Your task to perform on an android device: Search for good BBQ restaurants Image 0: 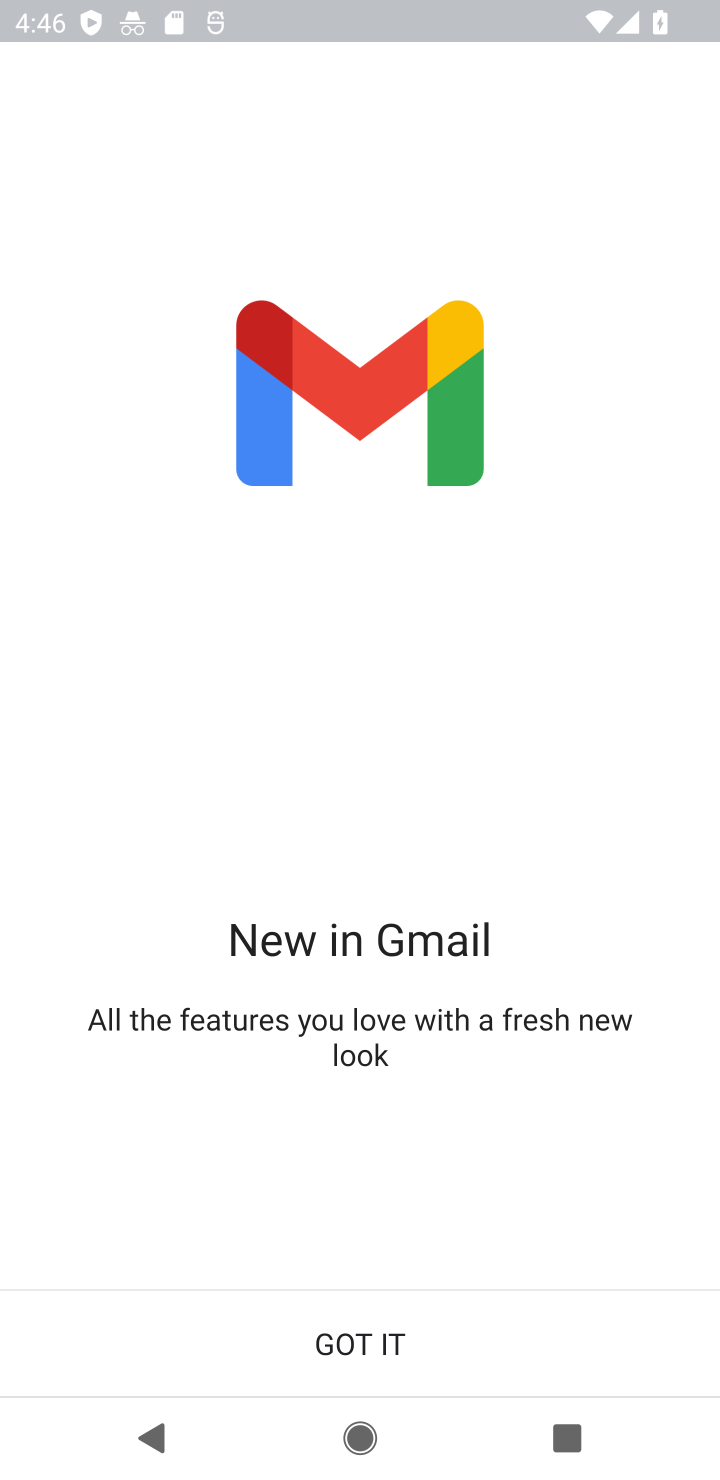
Step 0: press home button
Your task to perform on an android device: Search for good BBQ restaurants Image 1: 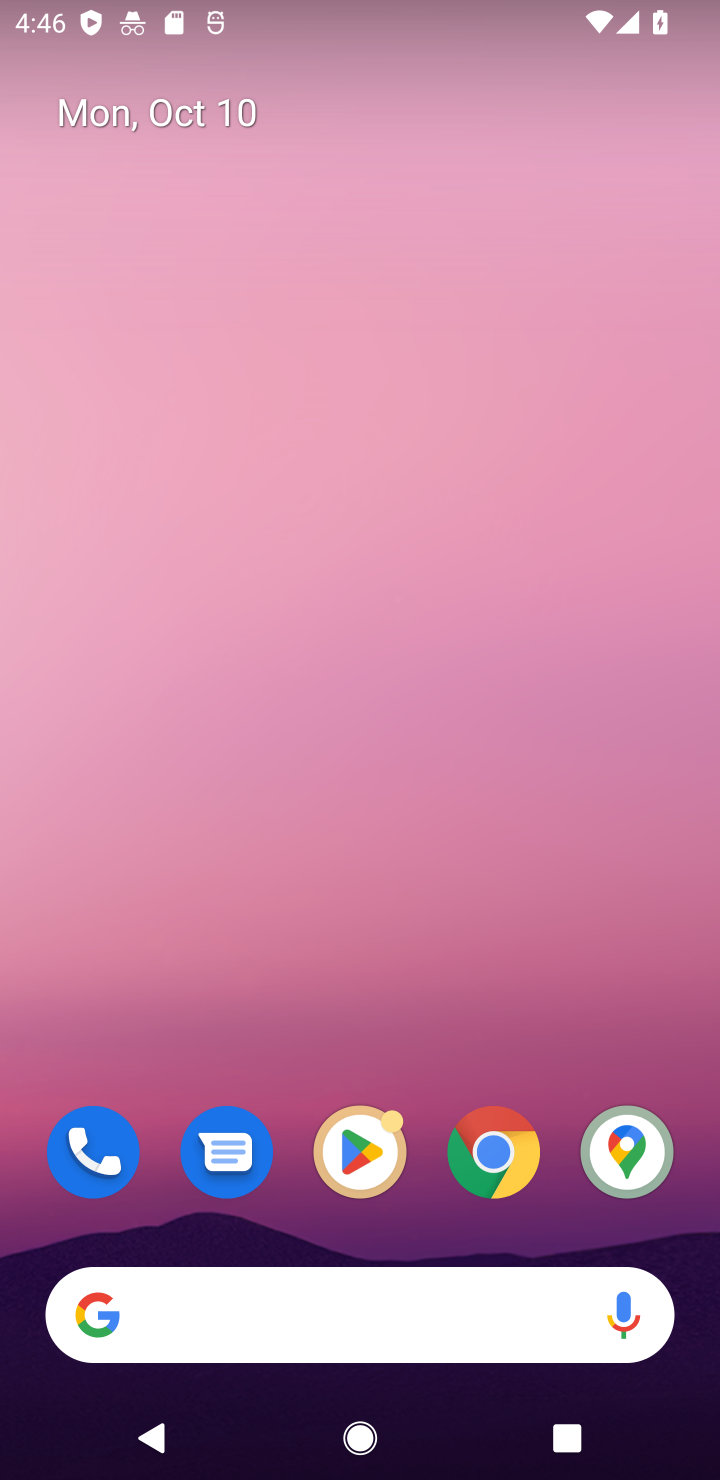
Step 1: click (485, 1148)
Your task to perform on an android device: Search for good BBQ restaurants Image 2: 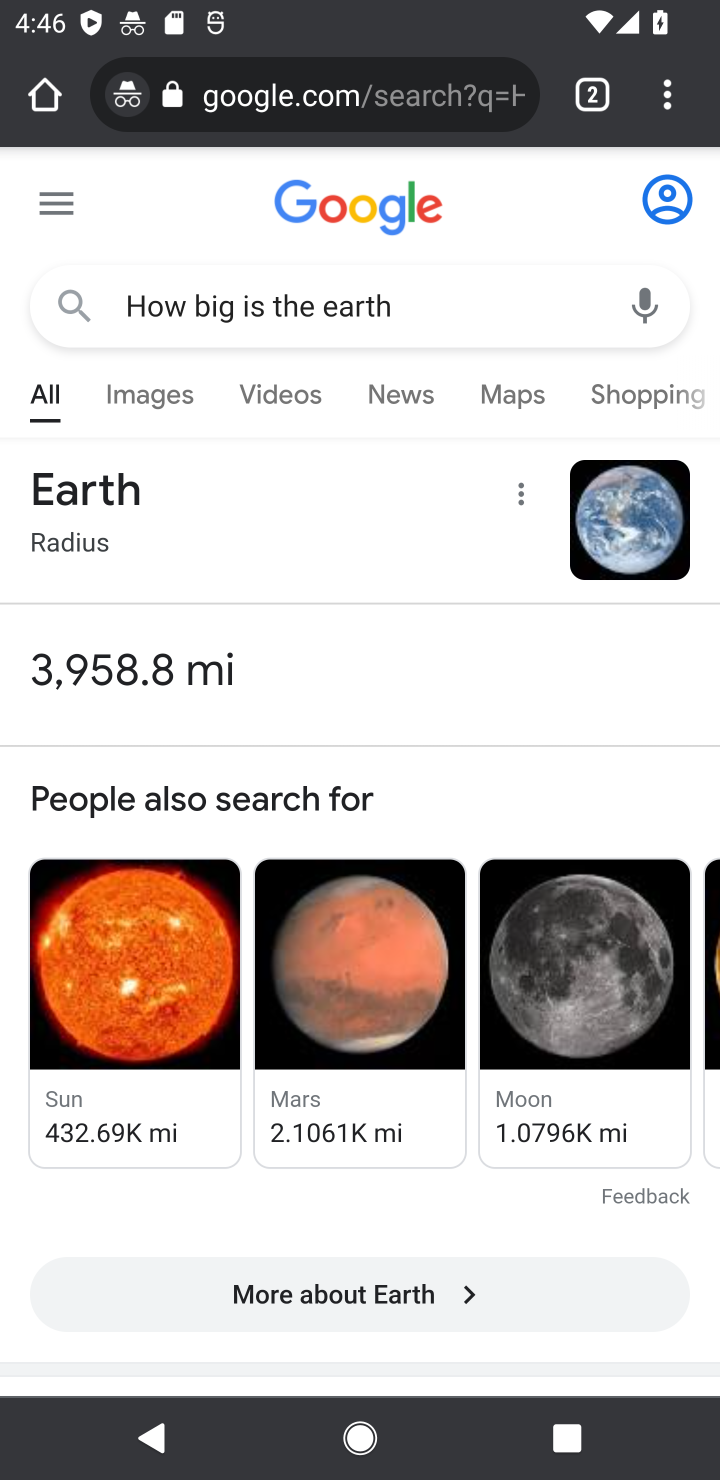
Step 2: click (315, 100)
Your task to perform on an android device: Search for good BBQ restaurants Image 3: 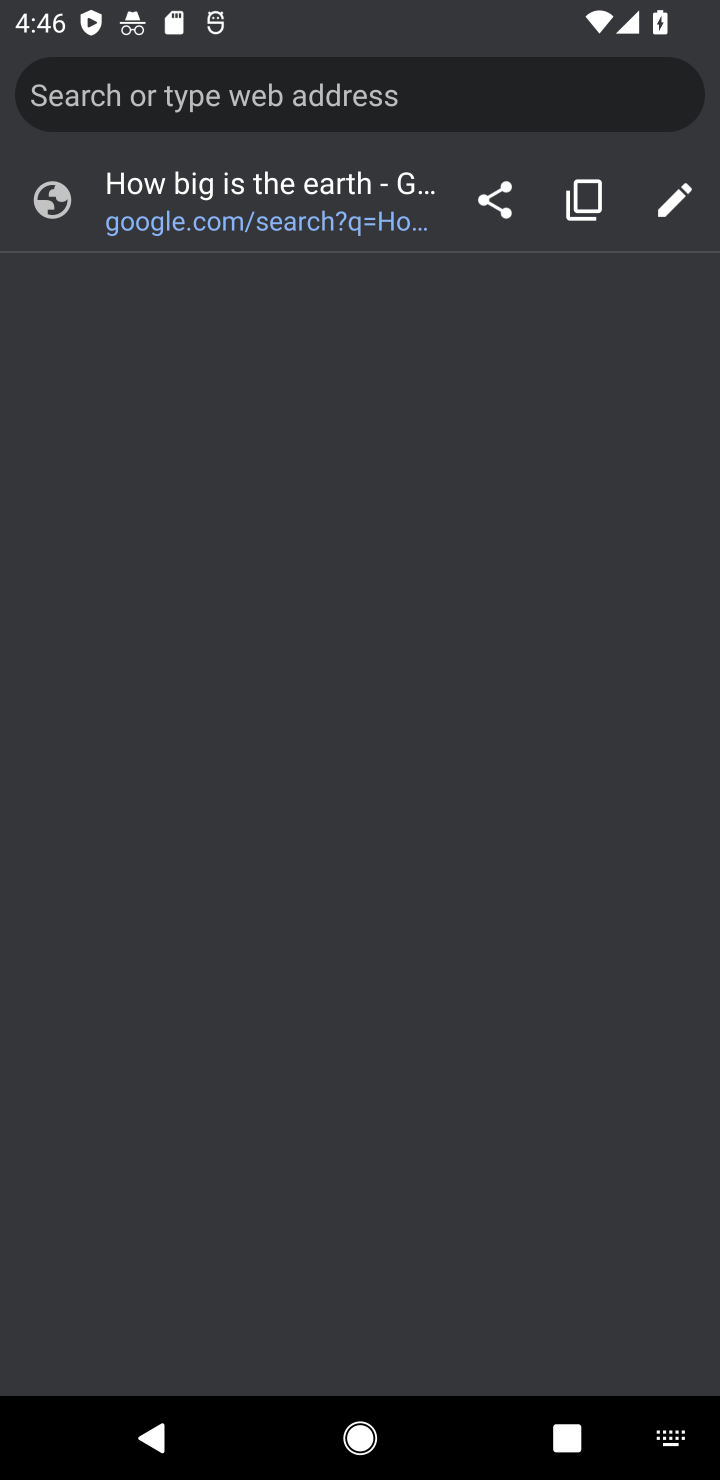
Step 3: type "BBQ restaurants"
Your task to perform on an android device: Search for good BBQ restaurants Image 4: 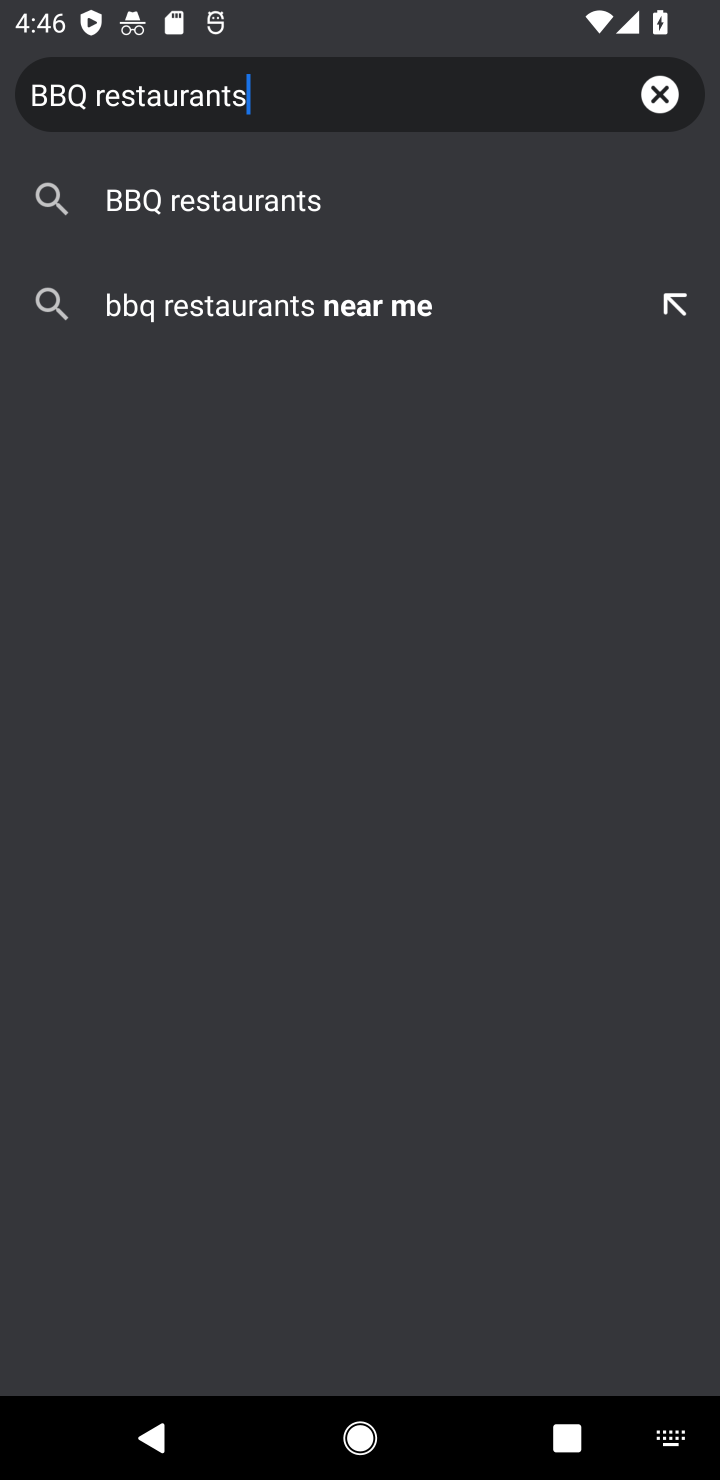
Step 4: click (223, 206)
Your task to perform on an android device: Search for good BBQ restaurants Image 5: 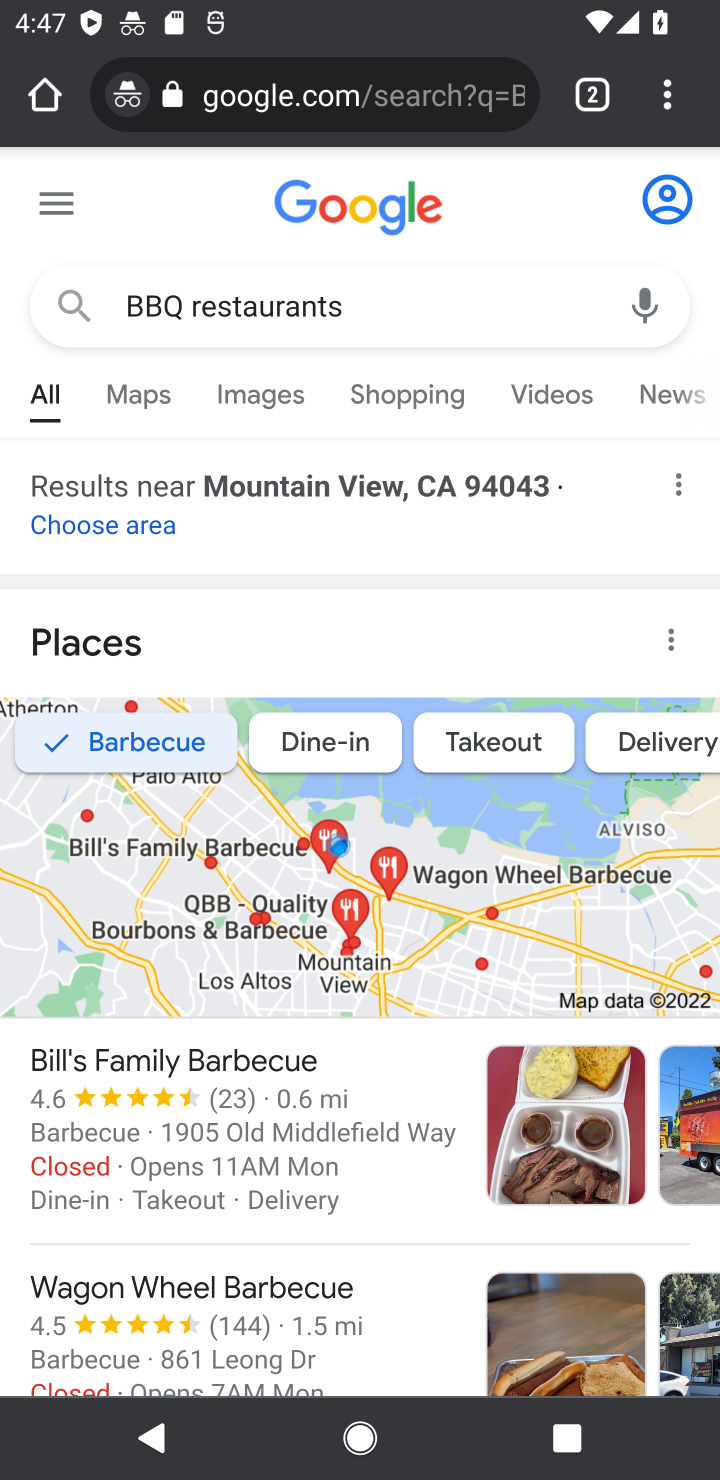
Step 5: task complete